Your task to perform on an android device: Go to settings Image 0: 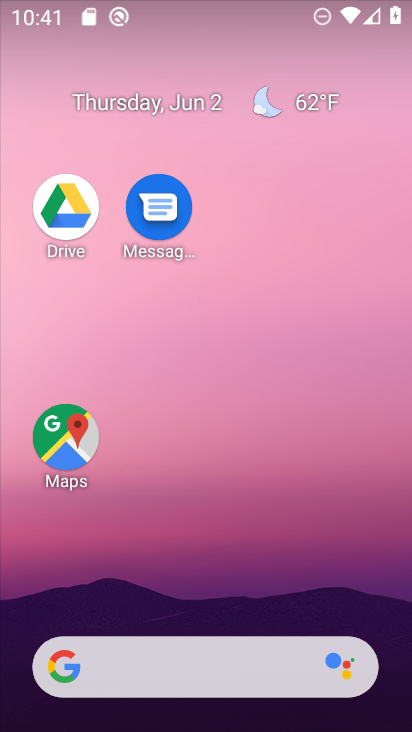
Step 0: drag from (202, 630) to (117, 3)
Your task to perform on an android device: Go to settings Image 1: 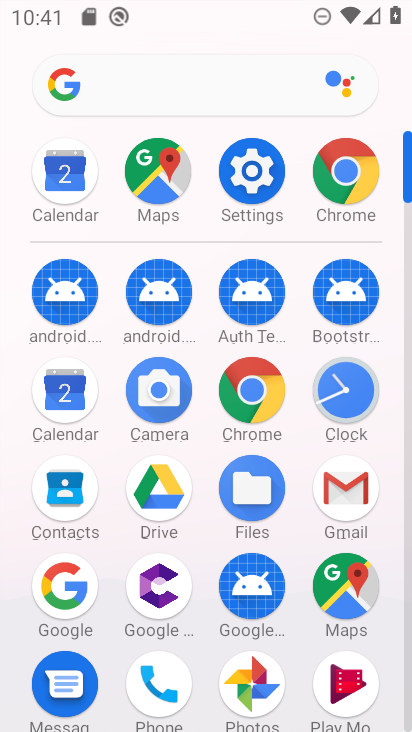
Step 1: click (245, 175)
Your task to perform on an android device: Go to settings Image 2: 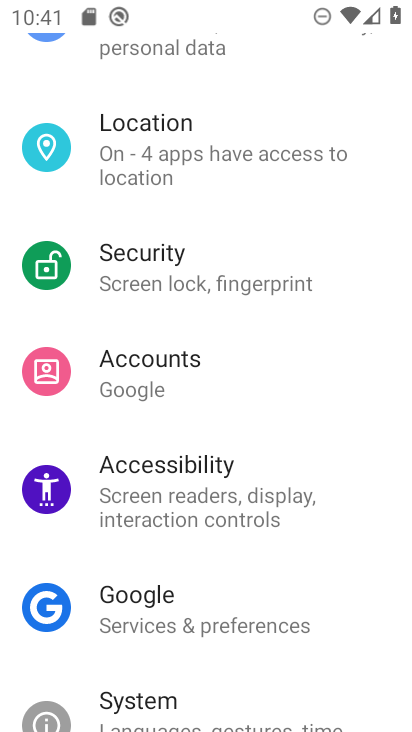
Step 2: task complete